Your task to perform on an android device: set an alarm Image 0: 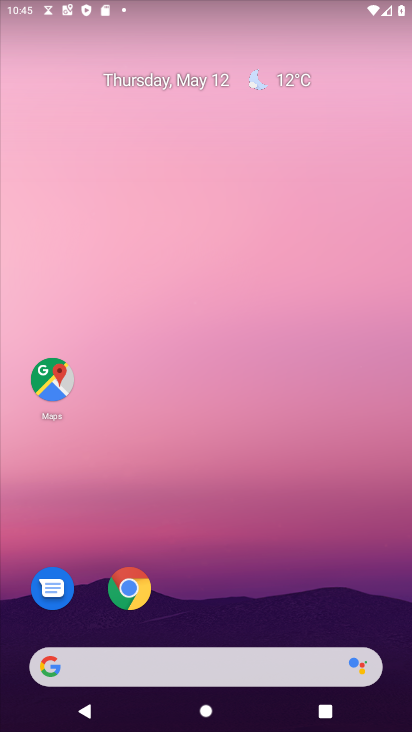
Step 0: drag from (221, 576) to (145, 149)
Your task to perform on an android device: set an alarm Image 1: 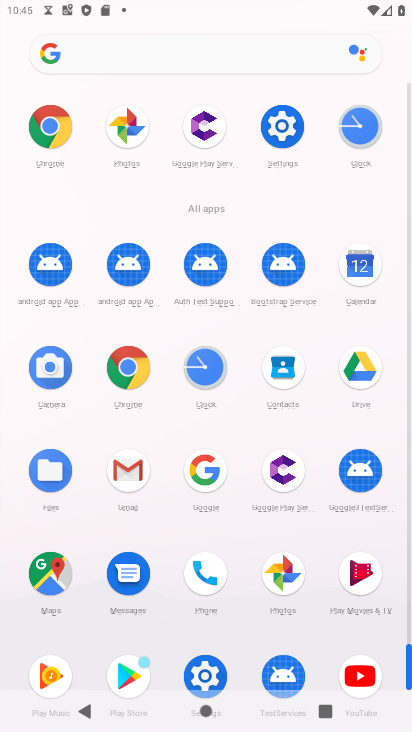
Step 1: click (360, 127)
Your task to perform on an android device: set an alarm Image 2: 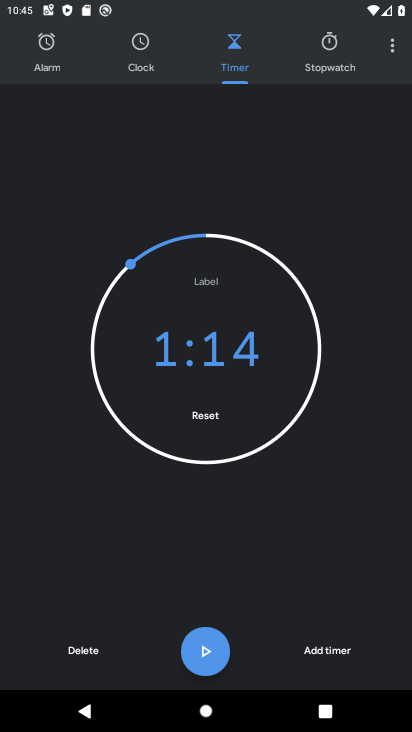
Step 2: click (54, 49)
Your task to perform on an android device: set an alarm Image 3: 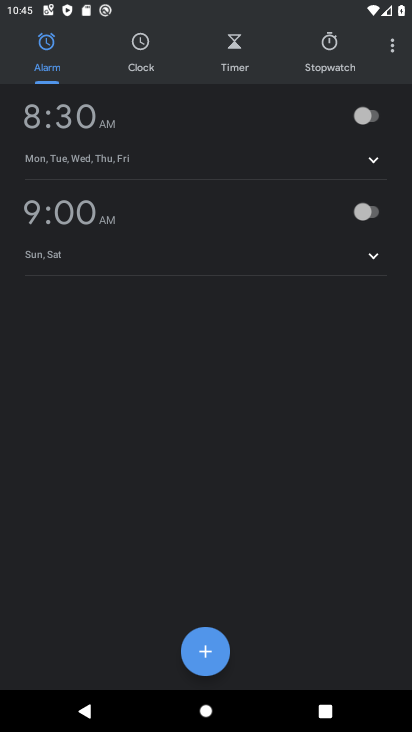
Step 3: click (208, 651)
Your task to perform on an android device: set an alarm Image 4: 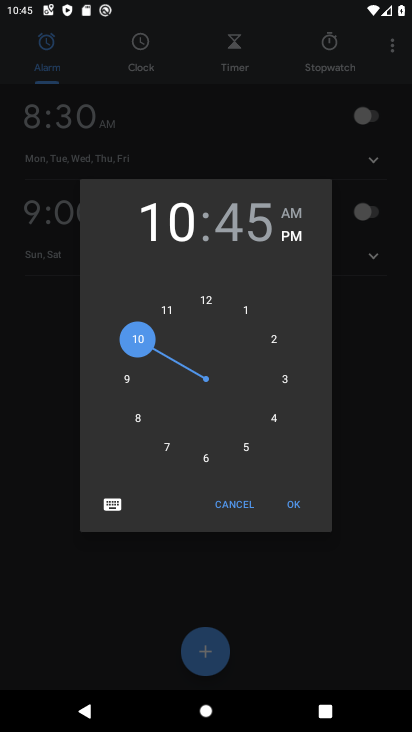
Step 4: click (245, 314)
Your task to perform on an android device: set an alarm Image 5: 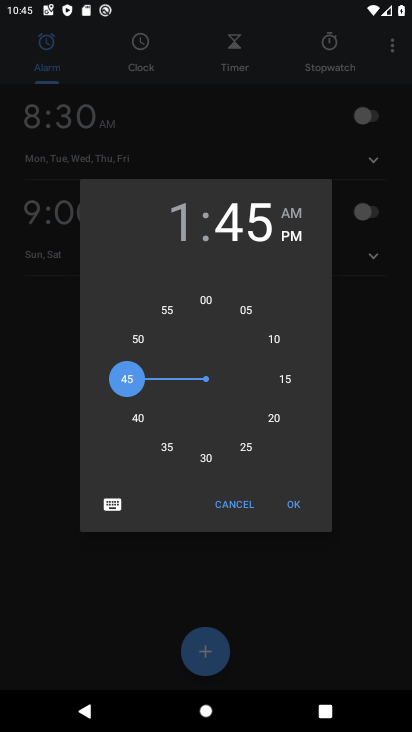
Step 5: click (244, 443)
Your task to perform on an android device: set an alarm Image 6: 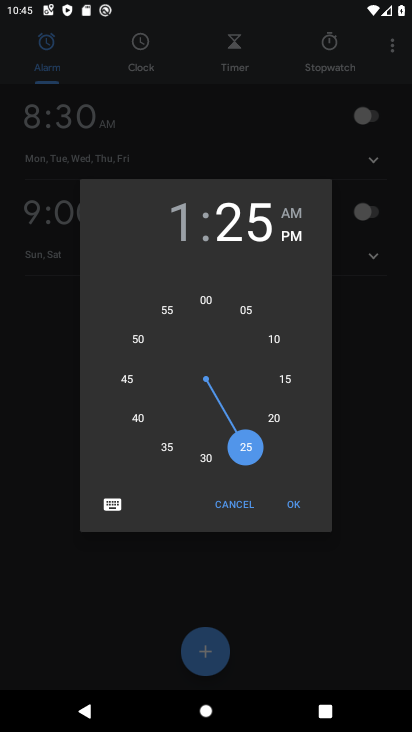
Step 6: click (297, 213)
Your task to perform on an android device: set an alarm Image 7: 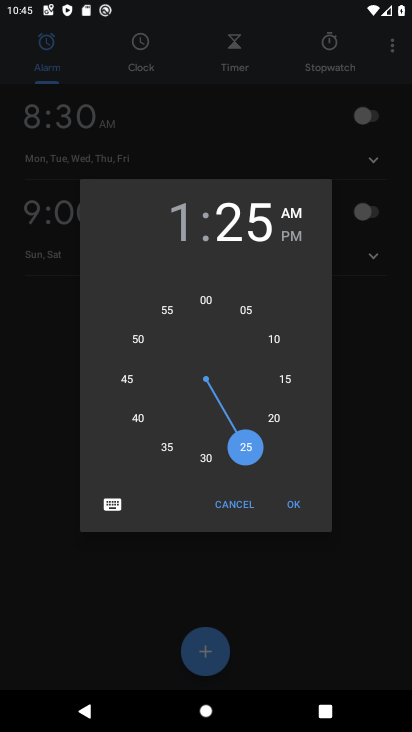
Step 7: click (297, 504)
Your task to perform on an android device: set an alarm Image 8: 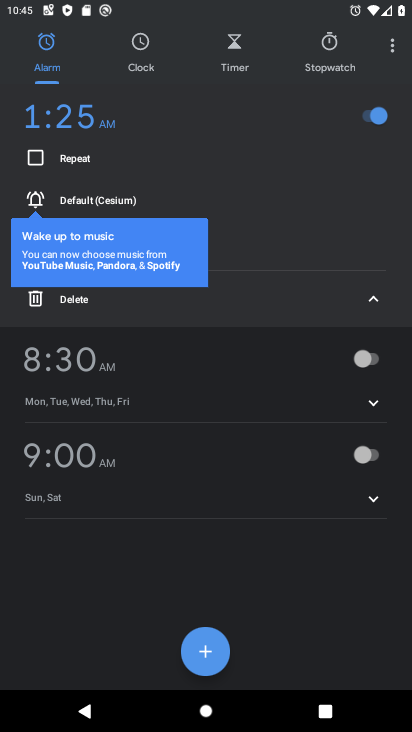
Step 8: click (372, 298)
Your task to perform on an android device: set an alarm Image 9: 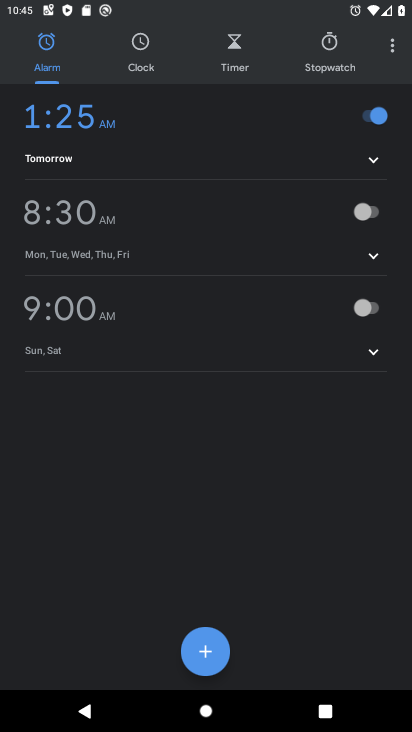
Step 9: task complete